Your task to perform on an android device: What's the weather? Image 0: 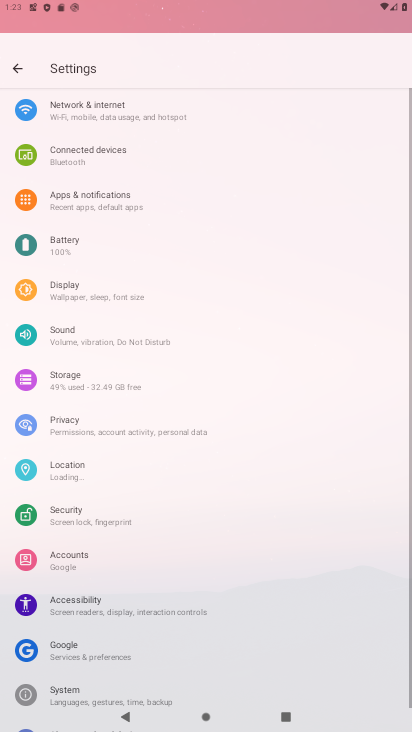
Step 0: drag from (211, 208) to (232, 95)
Your task to perform on an android device: What's the weather? Image 1: 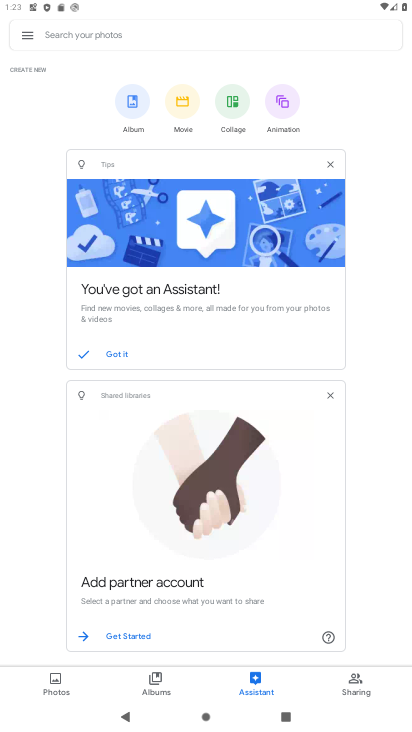
Step 1: press home button
Your task to perform on an android device: What's the weather? Image 2: 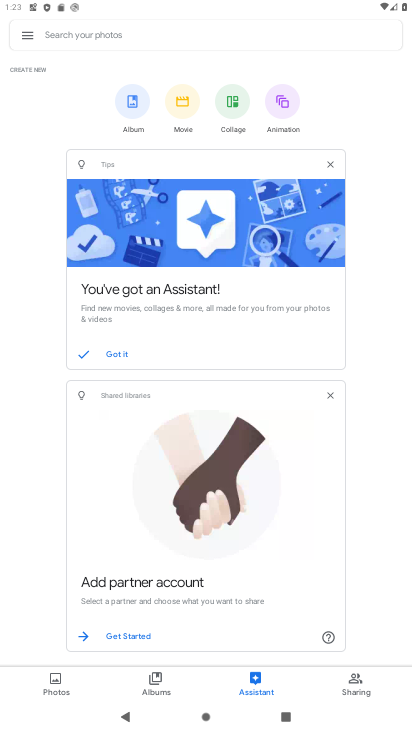
Step 2: press home button
Your task to perform on an android device: What's the weather? Image 3: 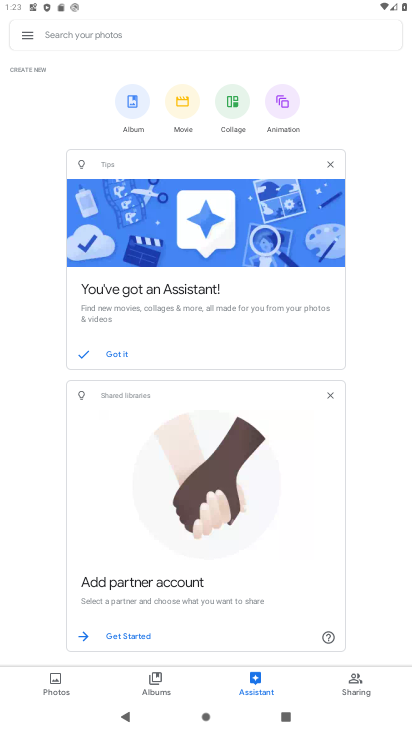
Step 3: click (198, 168)
Your task to perform on an android device: What's the weather? Image 4: 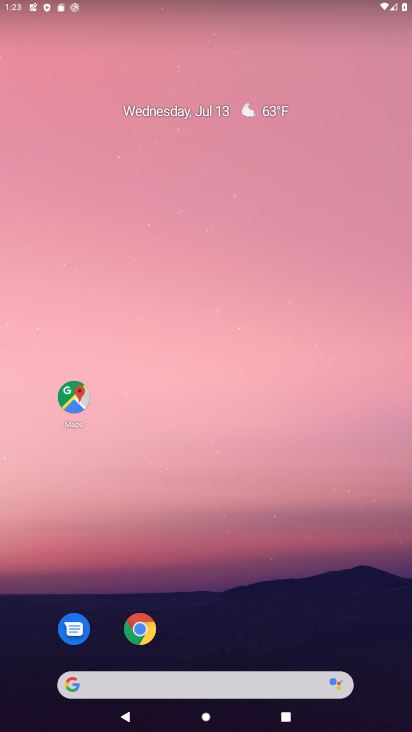
Step 4: drag from (177, 626) to (250, 78)
Your task to perform on an android device: What's the weather? Image 5: 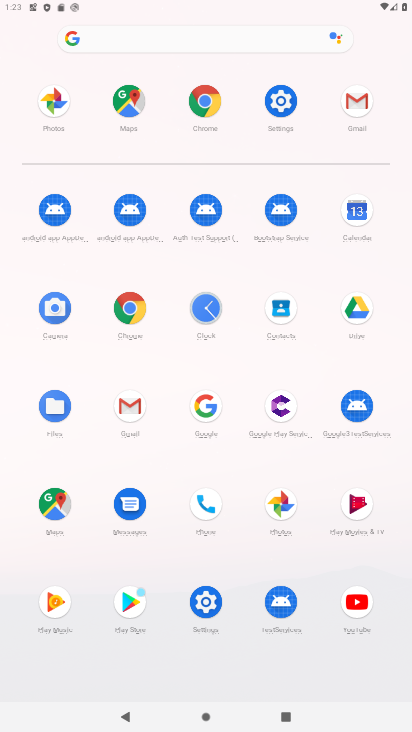
Step 5: click (143, 35)
Your task to perform on an android device: What's the weather? Image 6: 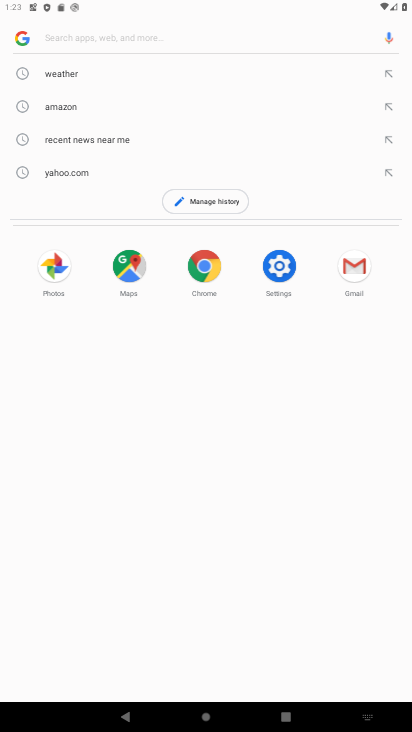
Step 6: click (57, 76)
Your task to perform on an android device: What's the weather? Image 7: 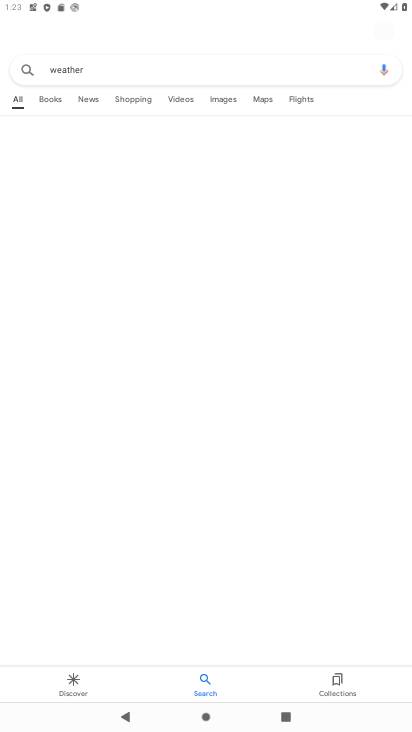
Step 7: drag from (189, 528) to (267, 109)
Your task to perform on an android device: What's the weather? Image 8: 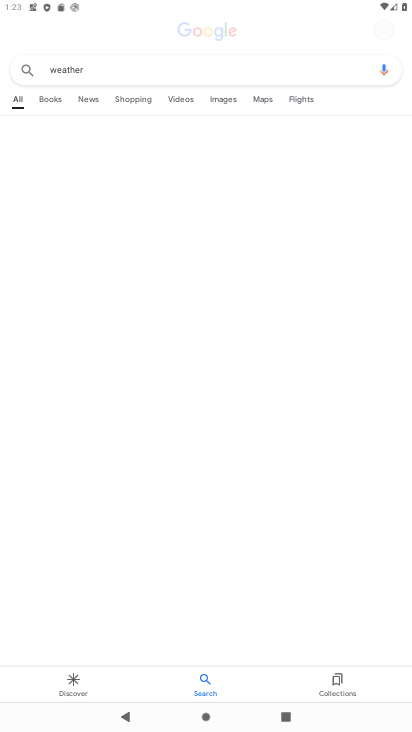
Step 8: drag from (217, 193) to (215, 429)
Your task to perform on an android device: What's the weather? Image 9: 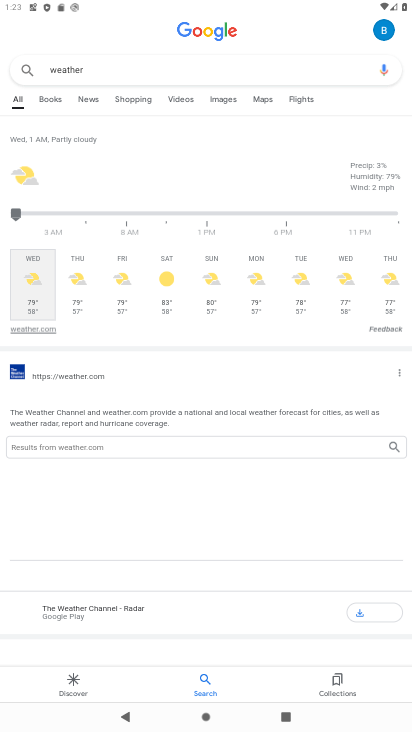
Step 9: click (186, 495)
Your task to perform on an android device: What's the weather? Image 10: 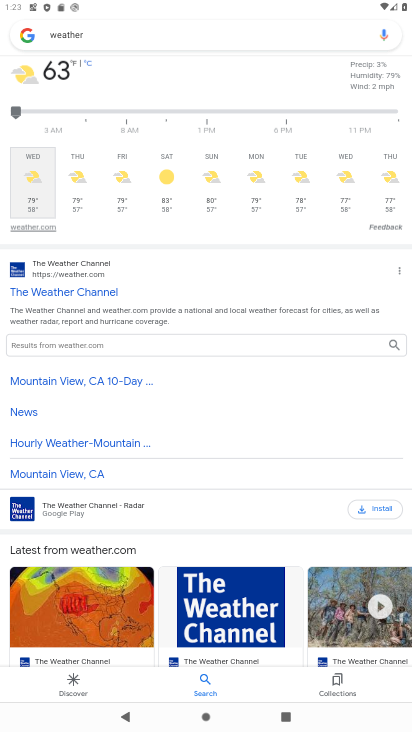
Step 10: task complete